Your task to perform on an android device: Go to privacy settings Image 0: 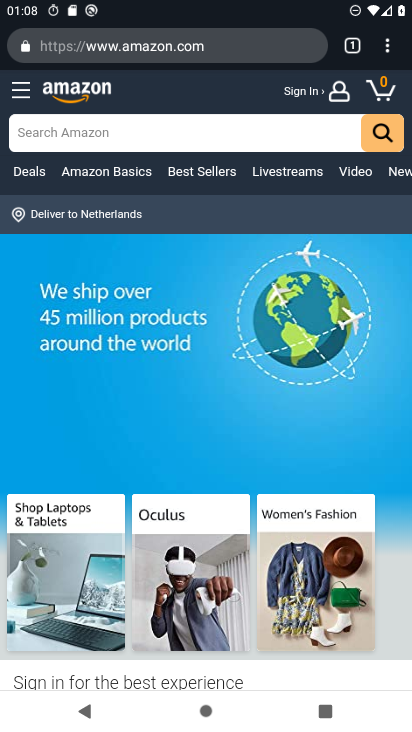
Step 0: press home button
Your task to perform on an android device: Go to privacy settings Image 1: 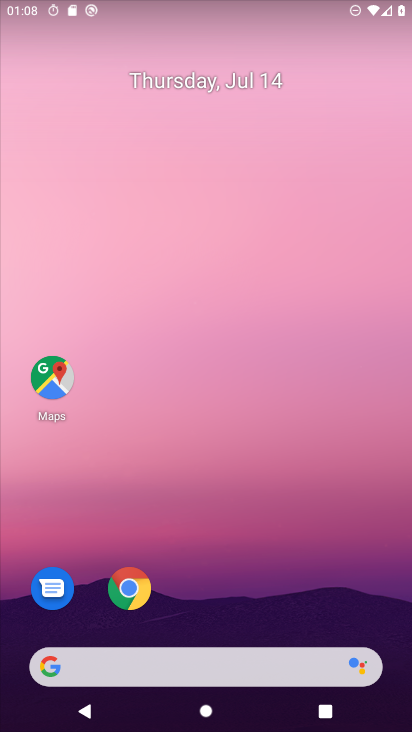
Step 1: drag from (176, 666) to (304, 42)
Your task to perform on an android device: Go to privacy settings Image 2: 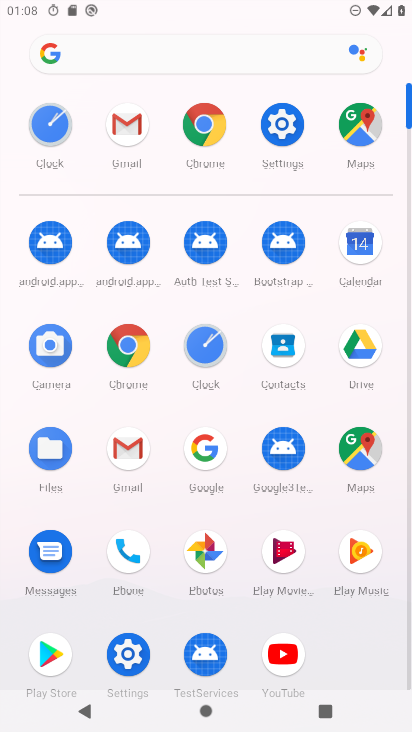
Step 2: click (287, 127)
Your task to perform on an android device: Go to privacy settings Image 3: 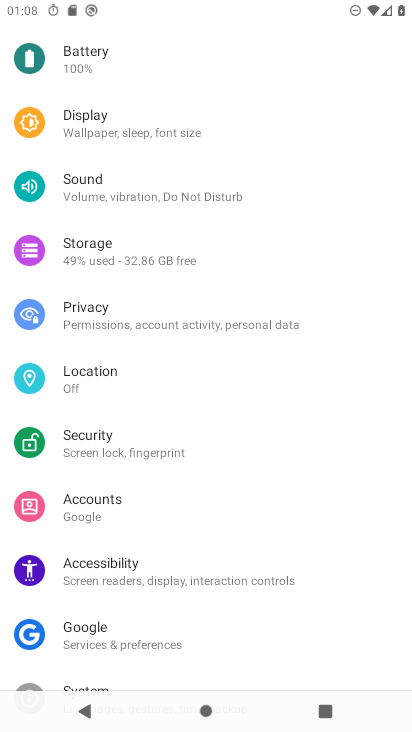
Step 3: click (103, 322)
Your task to perform on an android device: Go to privacy settings Image 4: 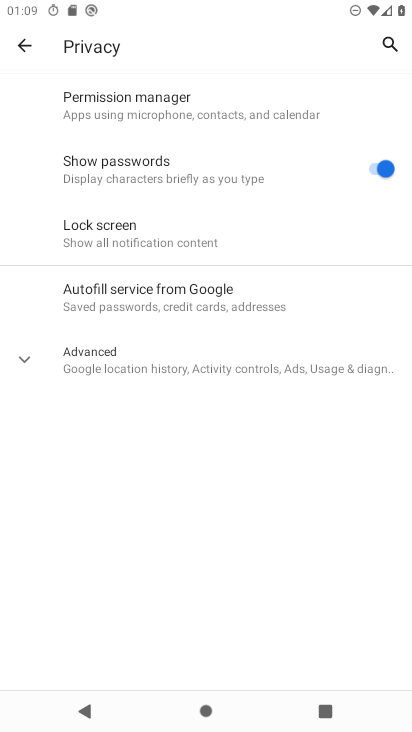
Step 4: task complete